Your task to perform on an android device: Open sound settings Image 0: 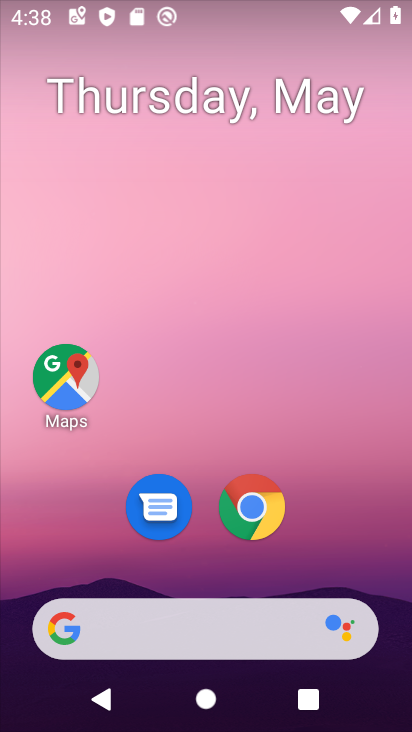
Step 0: drag from (299, 223) to (200, 0)
Your task to perform on an android device: Open sound settings Image 1: 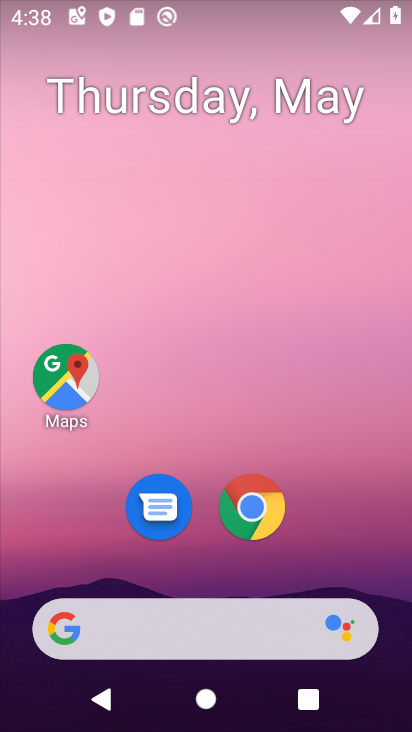
Step 1: drag from (320, 551) to (205, 76)
Your task to perform on an android device: Open sound settings Image 2: 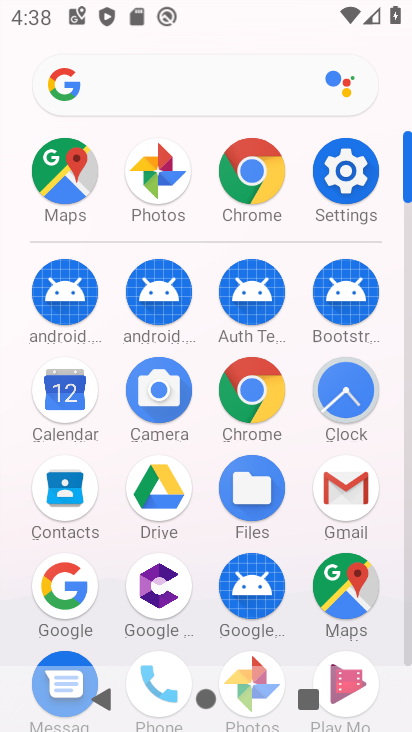
Step 2: drag from (347, 179) to (376, 216)
Your task to perform on an android device: Open sound settings Image 3: 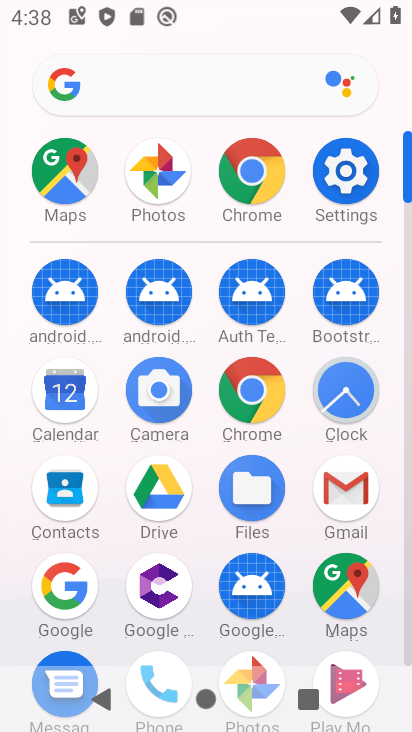
Step 3: click (339, 177)
Your task to perform on an android device: Open sound settings Image 4: 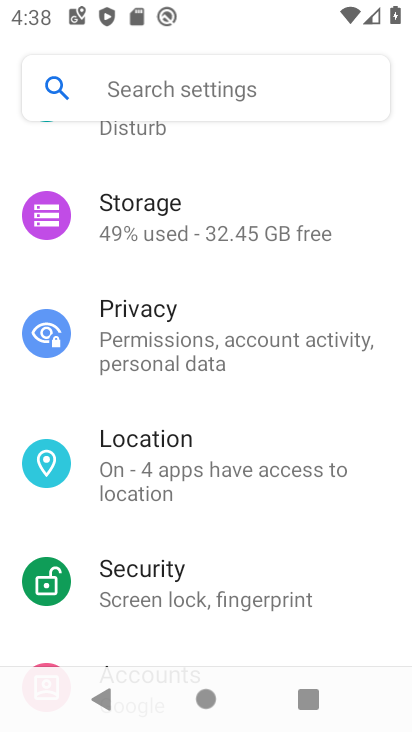
Step 4: drag from (181, 469) to (146, 124)
Your task to perform on an android device: Open sound settings Image 5: 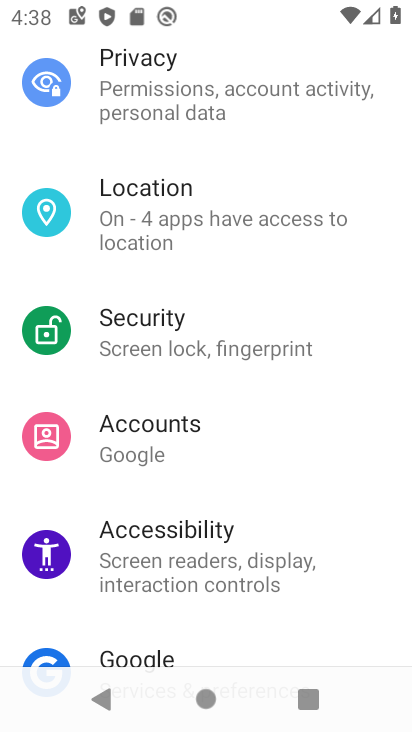
Step 5: drag from (159, 376) to (142, 137)
Your task to perform on an android device: Open sound settings Image 6: 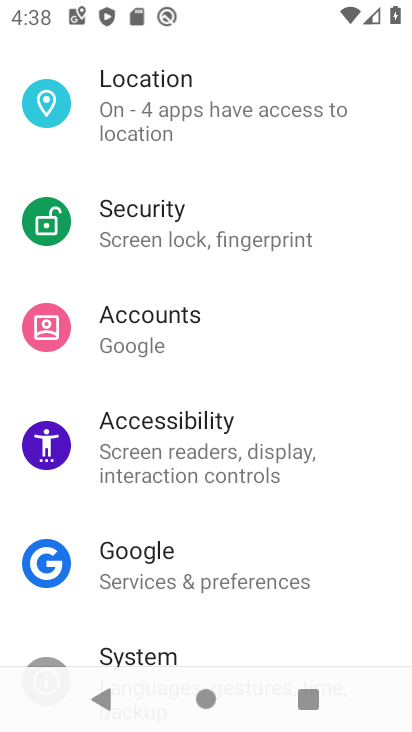
Step 6: drag from (149, 166) to (177, 563)
Your task to perform on an android device: Open sound settings Image 7: 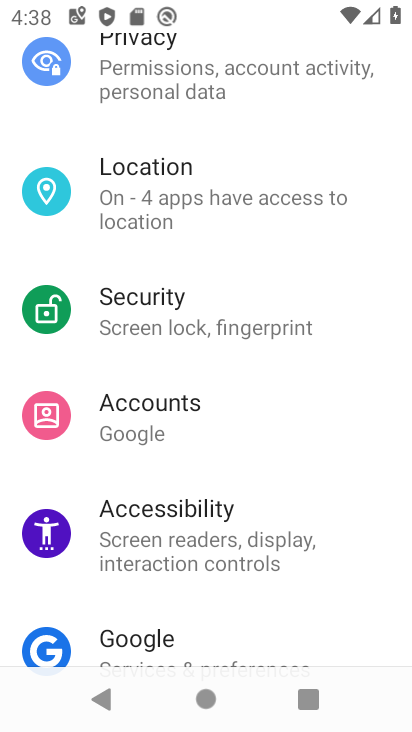
Step 7: drag from (192, 451) to (235, 602)
Your task to perform on an android device: Open sound settings Image 8: 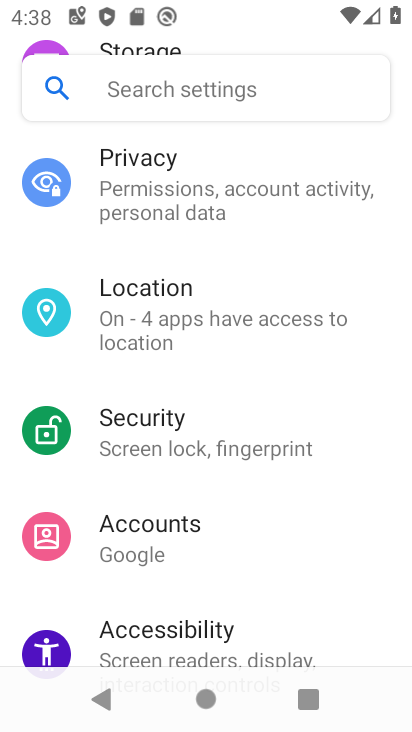
Step 8: drag from (159, 196) to (209, 490)
Your task to perform on an android device: Open sound settings Image 9: 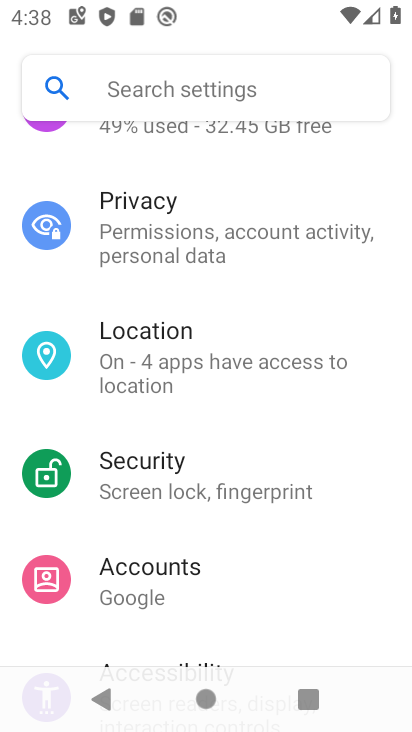
Step 9: drag from (189, 182) to (228, 425)
Your task to perform on an android device: Open sound settings Image 10: 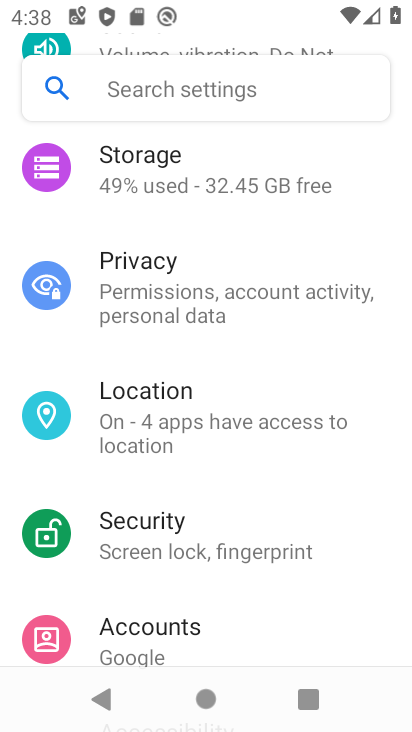
Step 10: drag from (158, 519) to (132, 211)
Your task to perform on an android device: Open sound settings Image 11: 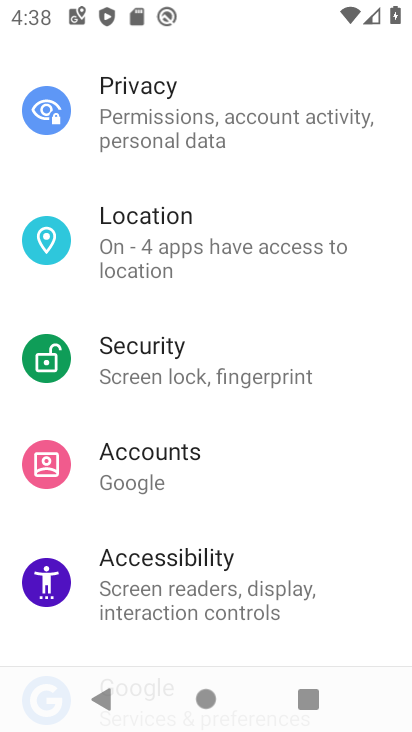
Step 11: drag from (186, 427) to (207, 19)
Your task to perform on an android device: Open sound settings Image 12: 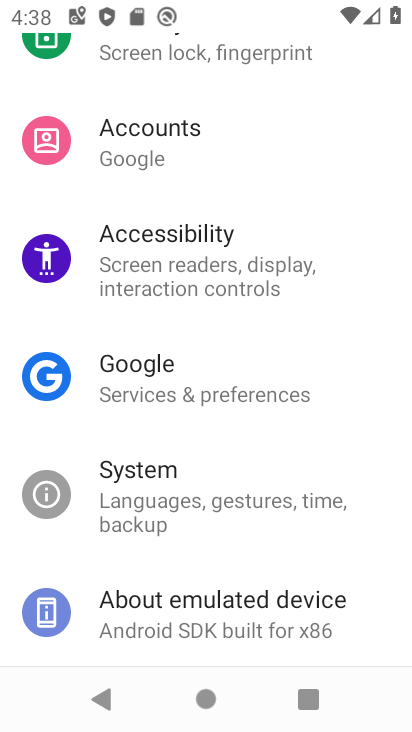
Step 12: click (142, 175)
Your task to perform on an android device: Open sound settings Image 13: 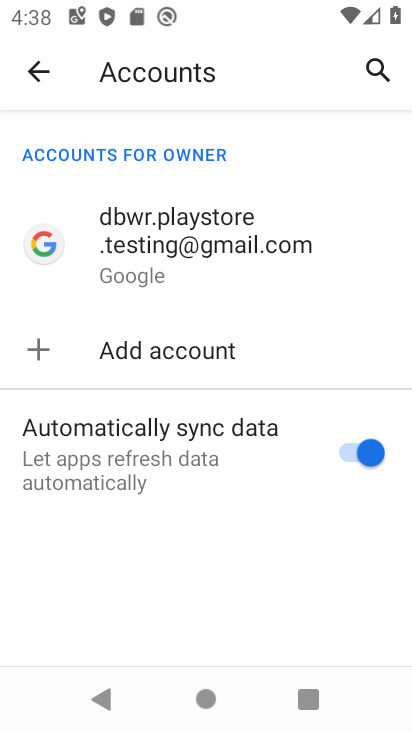
Step 13: drag from (180, 421) to (135, 141)
Your task to perform on an android device: Open sound settings Image 14: 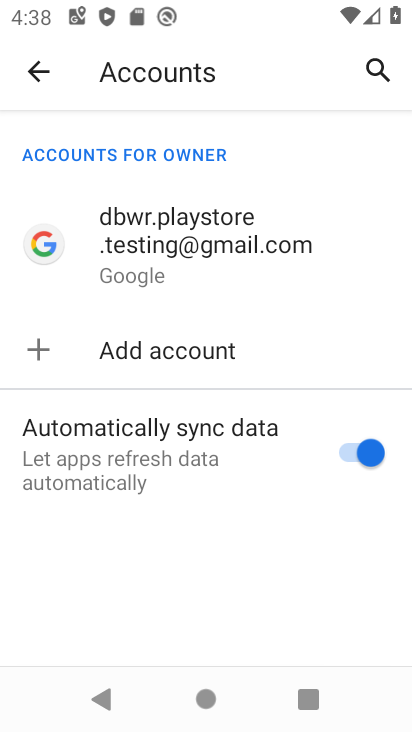
Step 14: click (44, 75)
Your task to perform on an android device: Open sound settings Image 15: 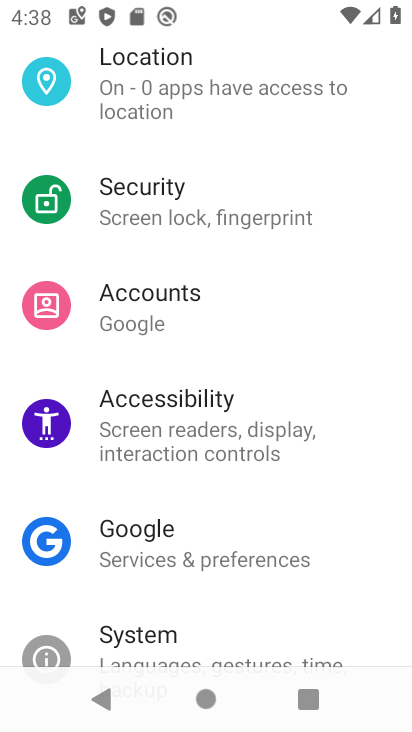
Step 15: click (130, 234)
Your task to perform on an android device: Open sound settings Image 16: 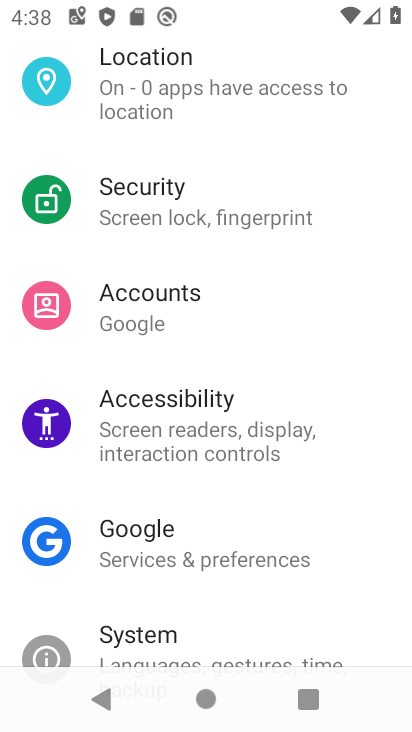
Step 16: drag from (187, 424) to (152, 183)
Your task to perform on an android device: Open sound settings Image 17: 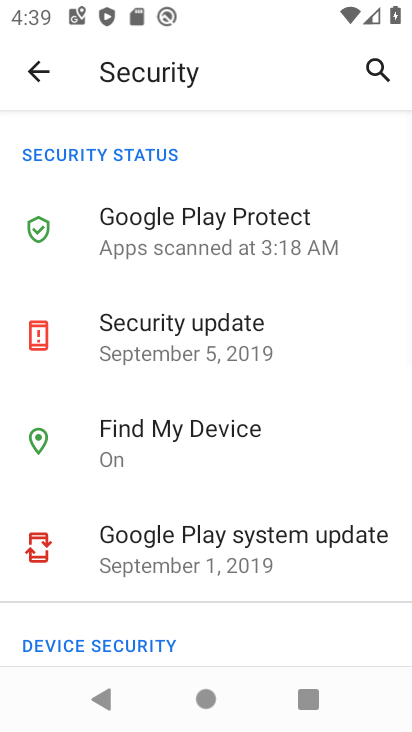
Step 17: click (35, 75)
Your task to perform on an android device: Open sound settings Image 18: 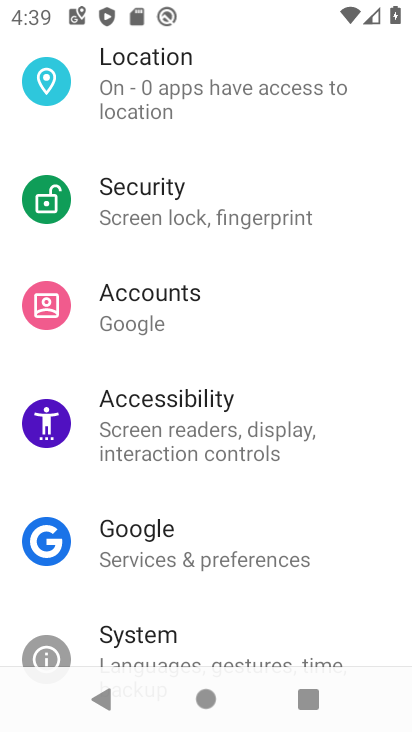
Step 18: drag from (156, 245) to (175, 557)
Your task to perform on an android device: Open sound settings Image 19: 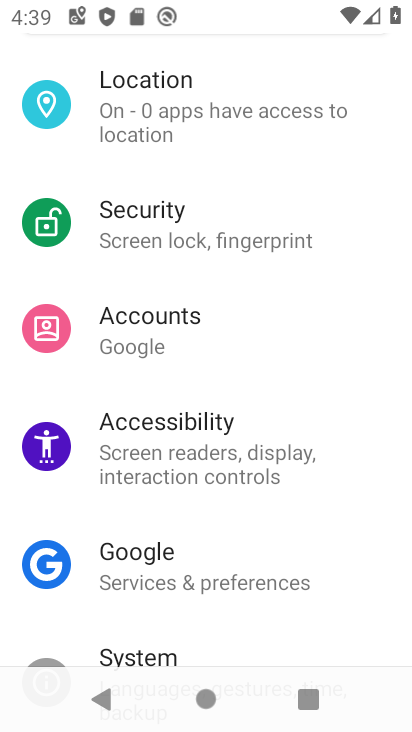
Step 19: drag from (130, 200) to (195, 580)
Your task to perform on an android device: Open sound settings Image 20: 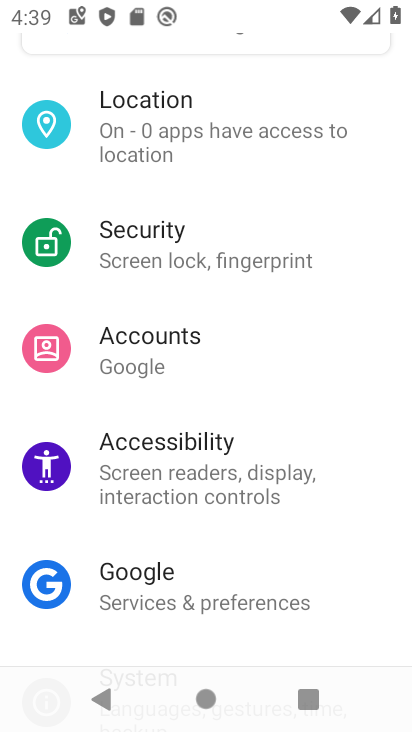
Step 20: drag from (168, 434) to (198, 603)
Your task to perform on an android device: Open sound settings Image 21: 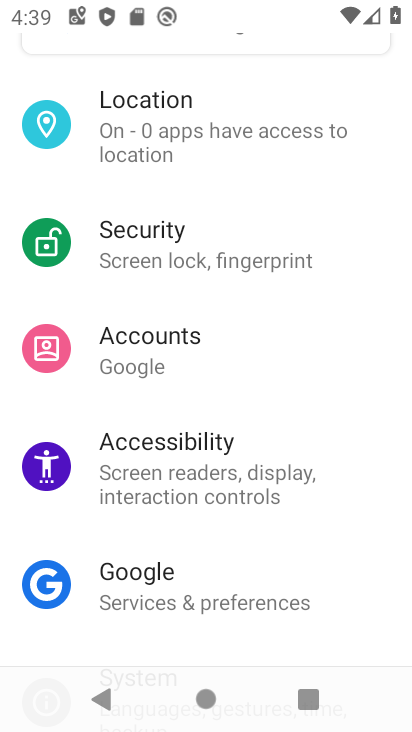
Step 21: drag from (180, 243) to (179, 556)
Your task to perform on an android device: Open sound settings Image 22: 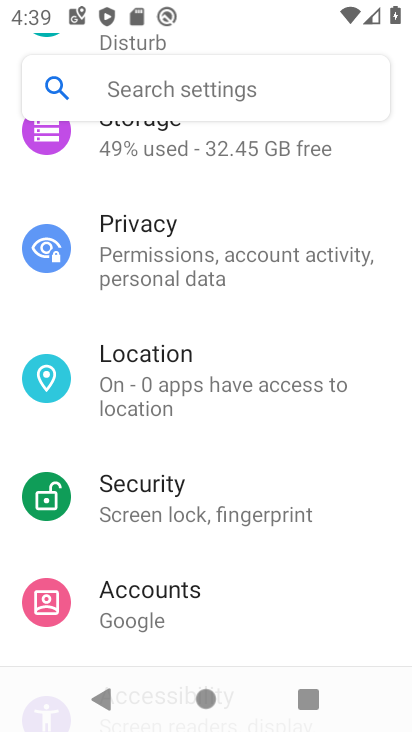
Step 22: drag from (166, 244) to (202, 531)
Your task to perform on an android device: Open sound settings Image 23: 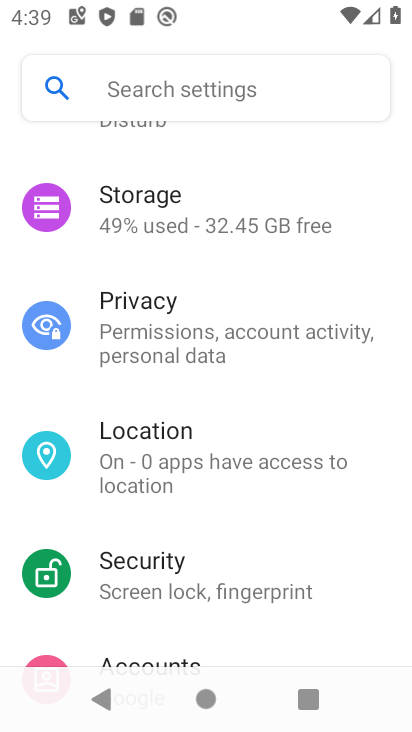
Step 23: drag from (206, 272) to (214, 608)
Your task to perform on an android device: Open sound settings Image 24: 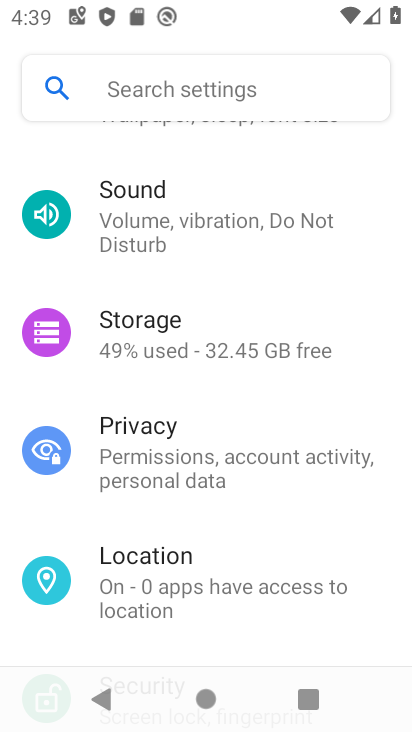
Step 24: drag from (192, 392) to (226, 626)
Your task to perform on an android device: Open sound settings Image 25: 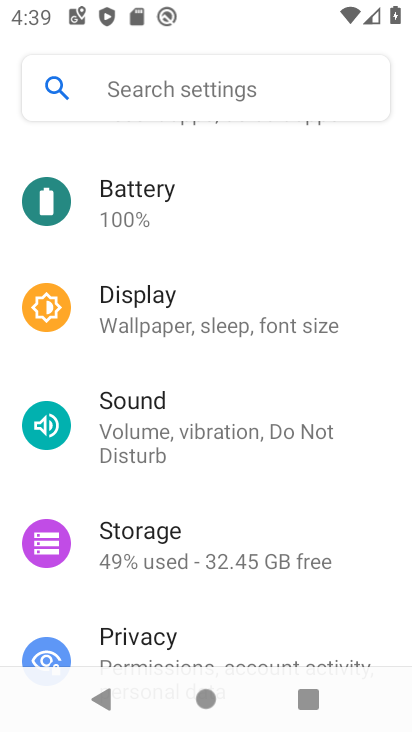
Step 25: drag from (150, 222) to (206, 586)
Your task to perform on an android device: Open sound settings Image 26: 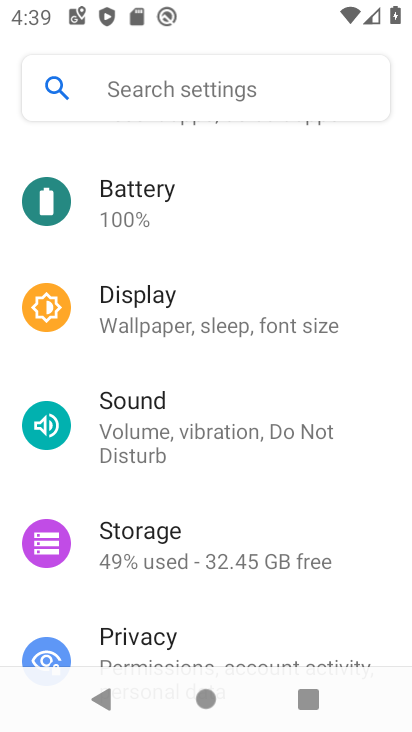
Step 26: click (151, 425)
Your task to perform on an android device: Open sound settings Image 27: 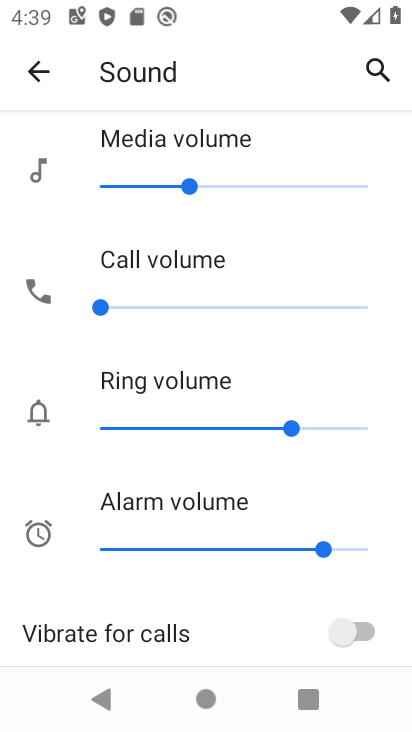
Step 27: task complete